Your task to perform on an android device: Search for pizza restaurants on Maps Image 0: 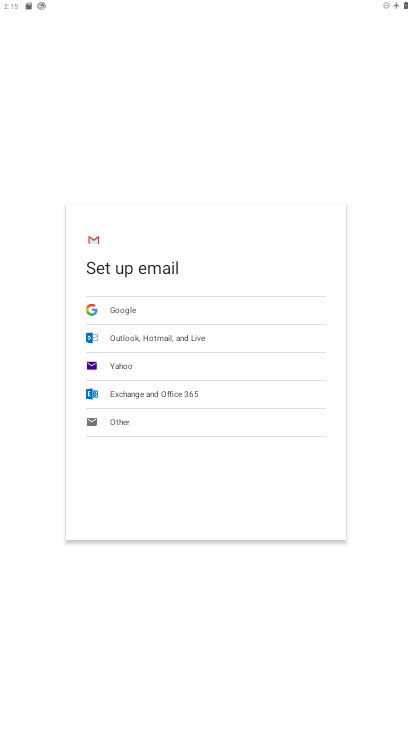
Step 0: press home button
Your task to perform on an android device: Search for pizza restaurants on Maps Image 1: 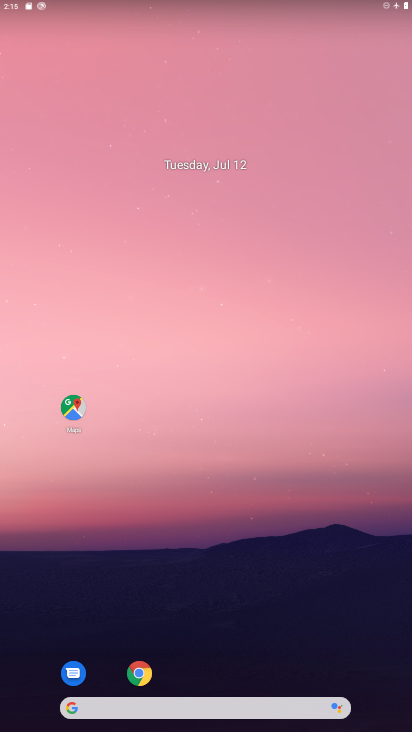
Step 1: drag from (277, 658) to (268, 190)
Your task to perform on an android device: Search for pizza restaurants on Maps Image 2: 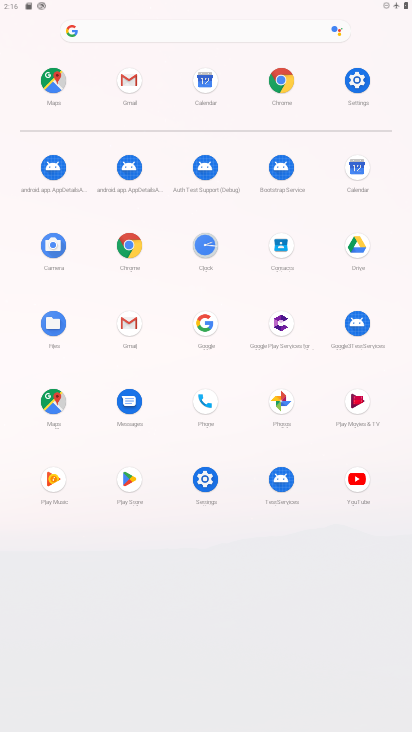
Step 2: click (55, 394)
Your task to perform on an android device: Search for pizza restaurants on Maps Image 3: 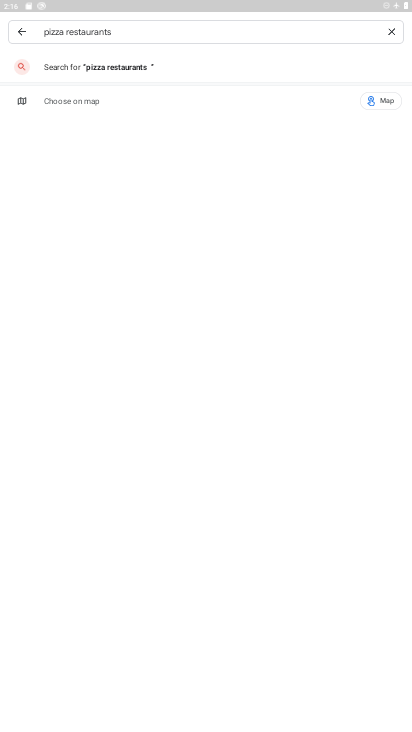
Step 3: click (125, 32)
Your task to perform on an android device: Search for pizza restaurants on Maps Image 4: 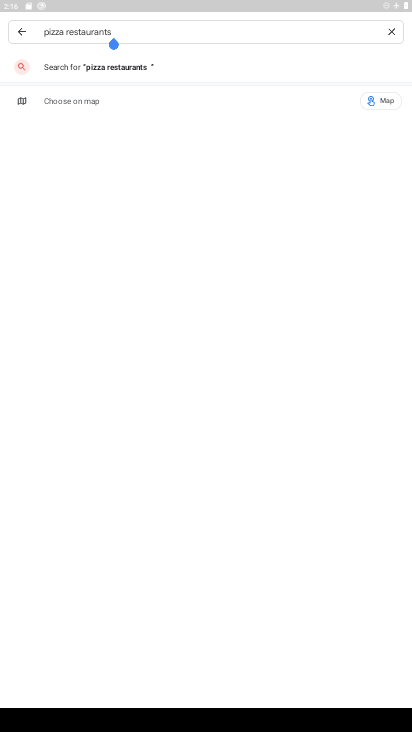
Step 4: click (124, 60)
Your task to perform on an android device: Search for pizza restaurants on Maps Image 5: 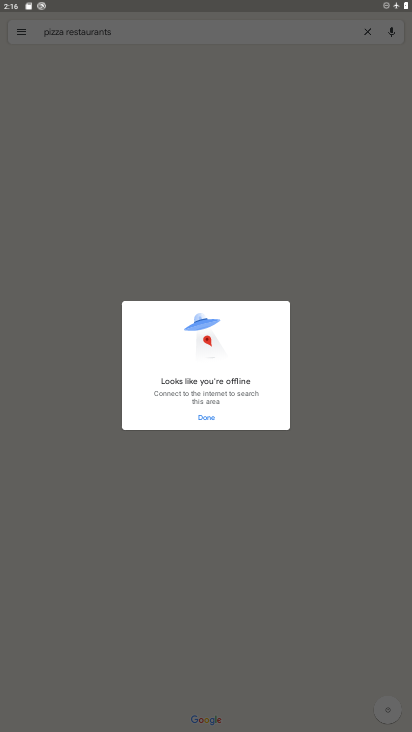
Step 5: task complete